Your task to perform on an android device: Check the news Image 0: 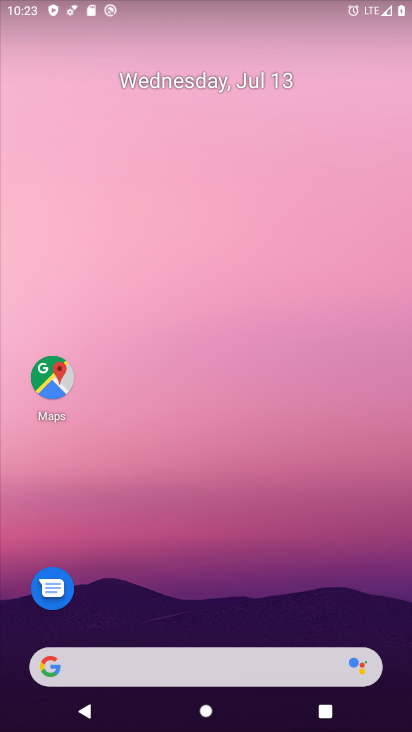
Step 0: click (100, 665)
Your task to perform on an android device: Check the news Image 1: 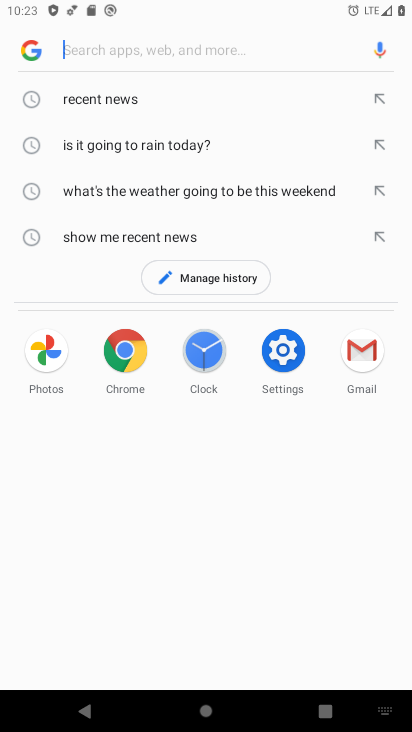
Step 1: type "news"
Your task to perform on an android device: Check the news Image 2: 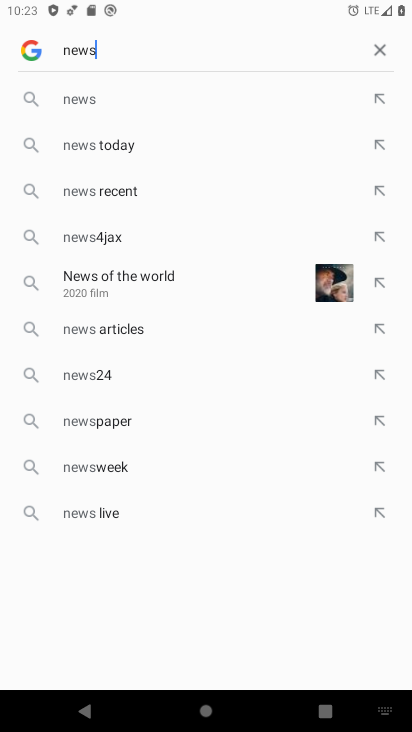
Step 2: click (242, 89)
Your task to perform on an android device: Check the news Image 3: 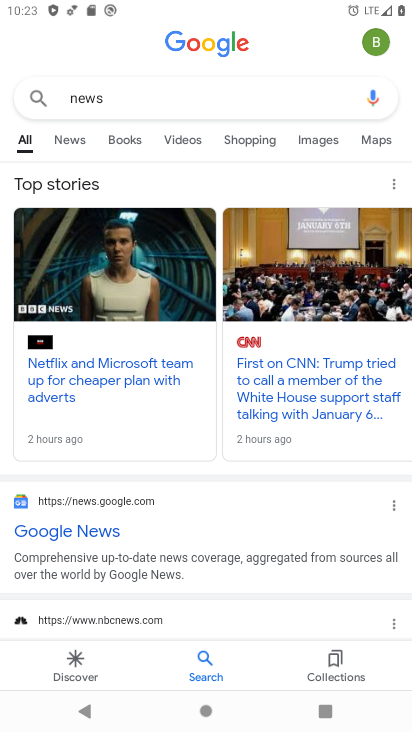
Step 3: task complete